Your task to perform on an android device: uninstall "Gmail" Image 0: 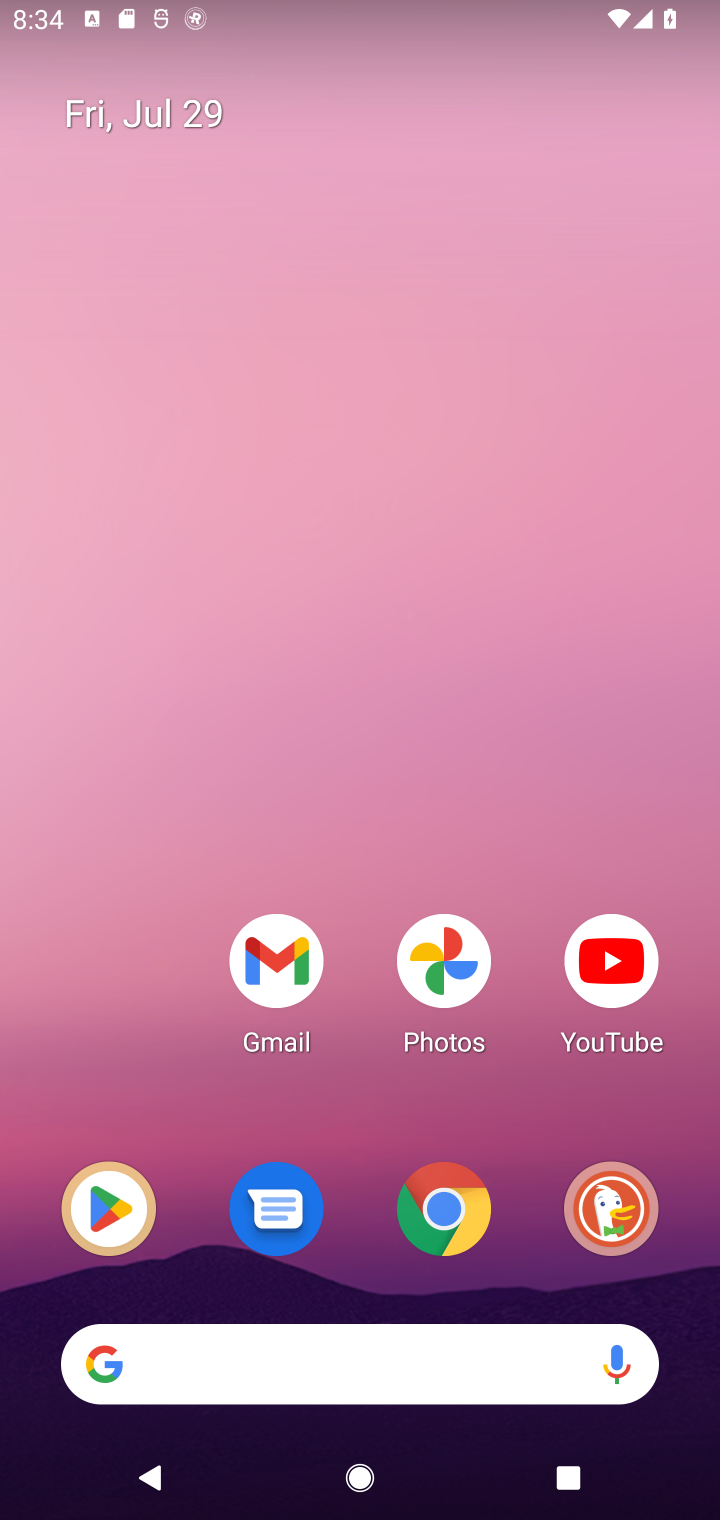
Step 0: click (291, 971)
Your task to perform on an android device: uninstall "Gmail" Image 1: 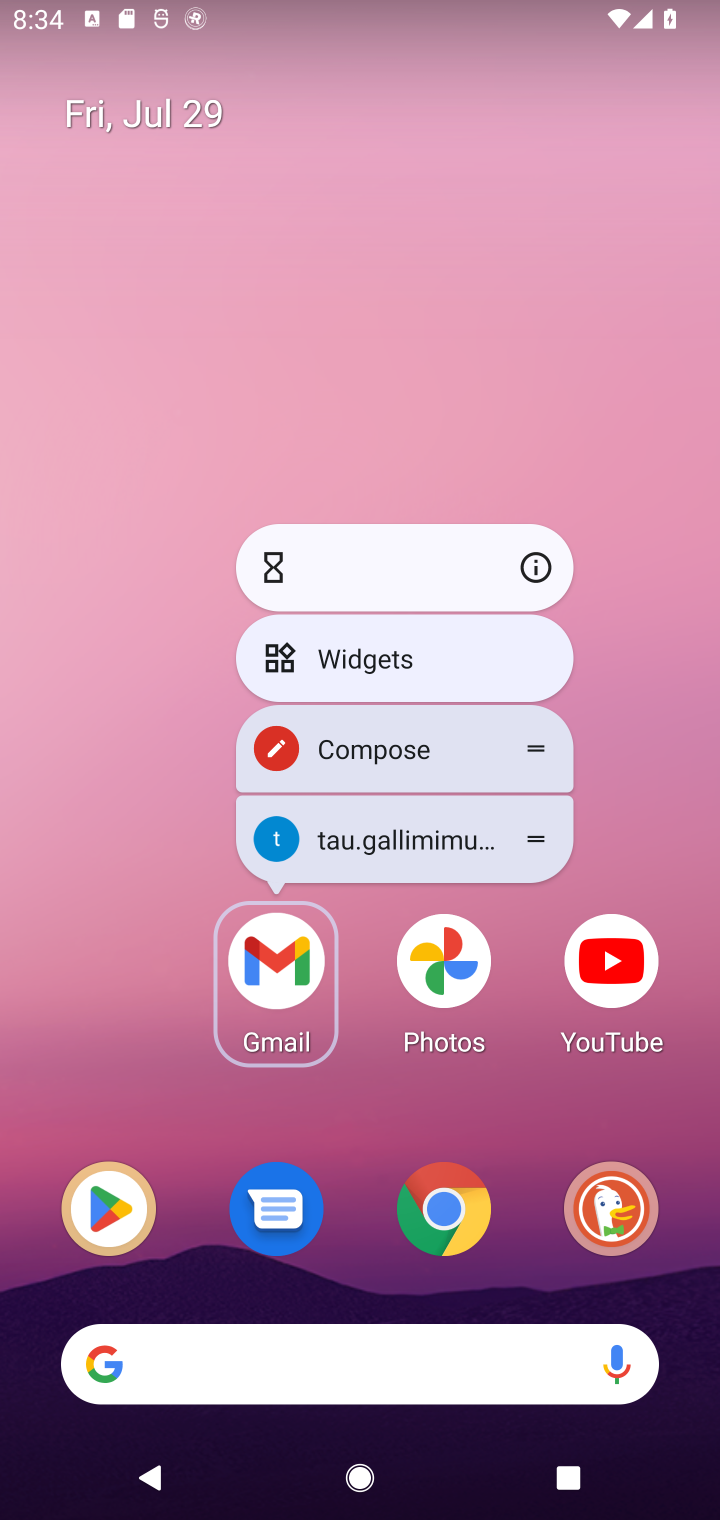
Step 1: click (532, 578)
Your task to perform on an android device: uninstall "Gmail" Image 2: 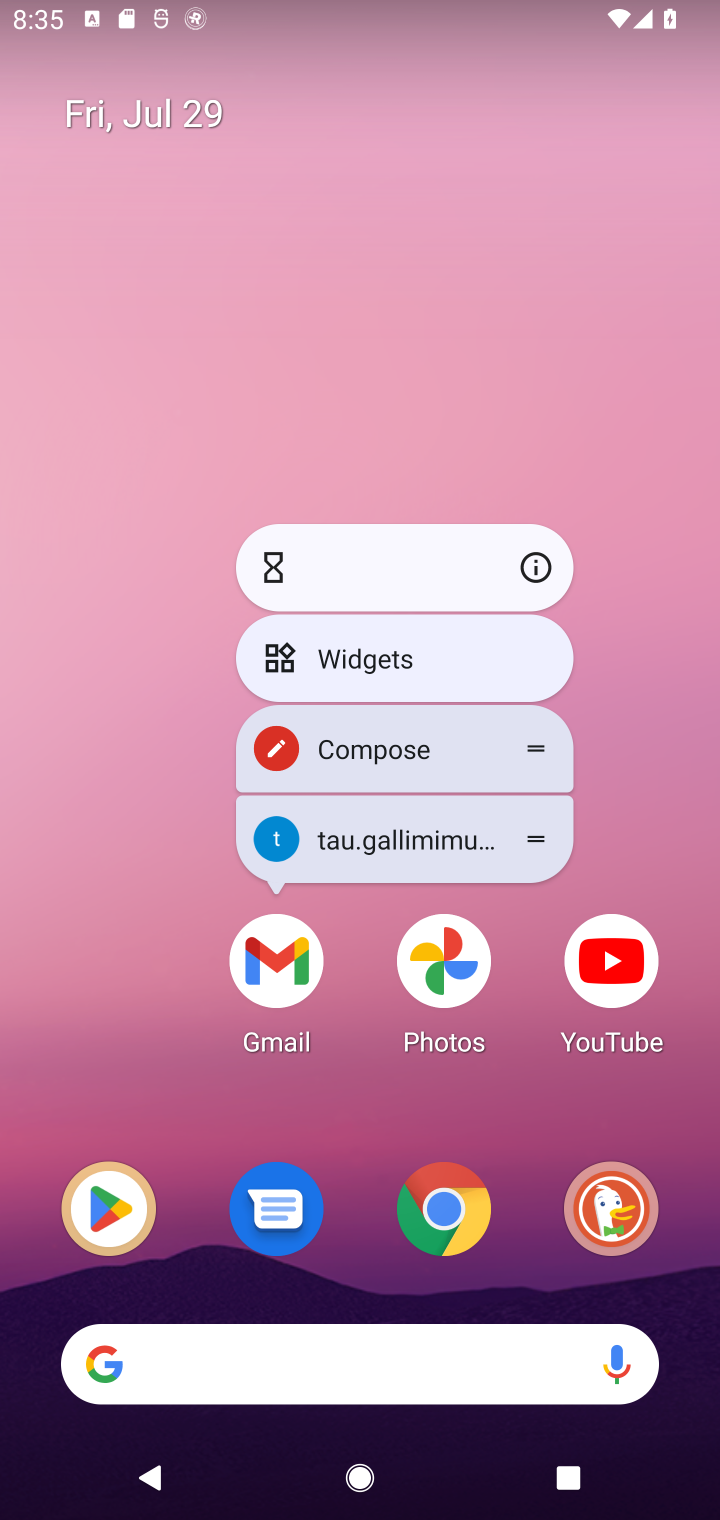
Step 2: click (534, 568)
Your task to perform on an android device: uninstall "Gmail" Image 3: 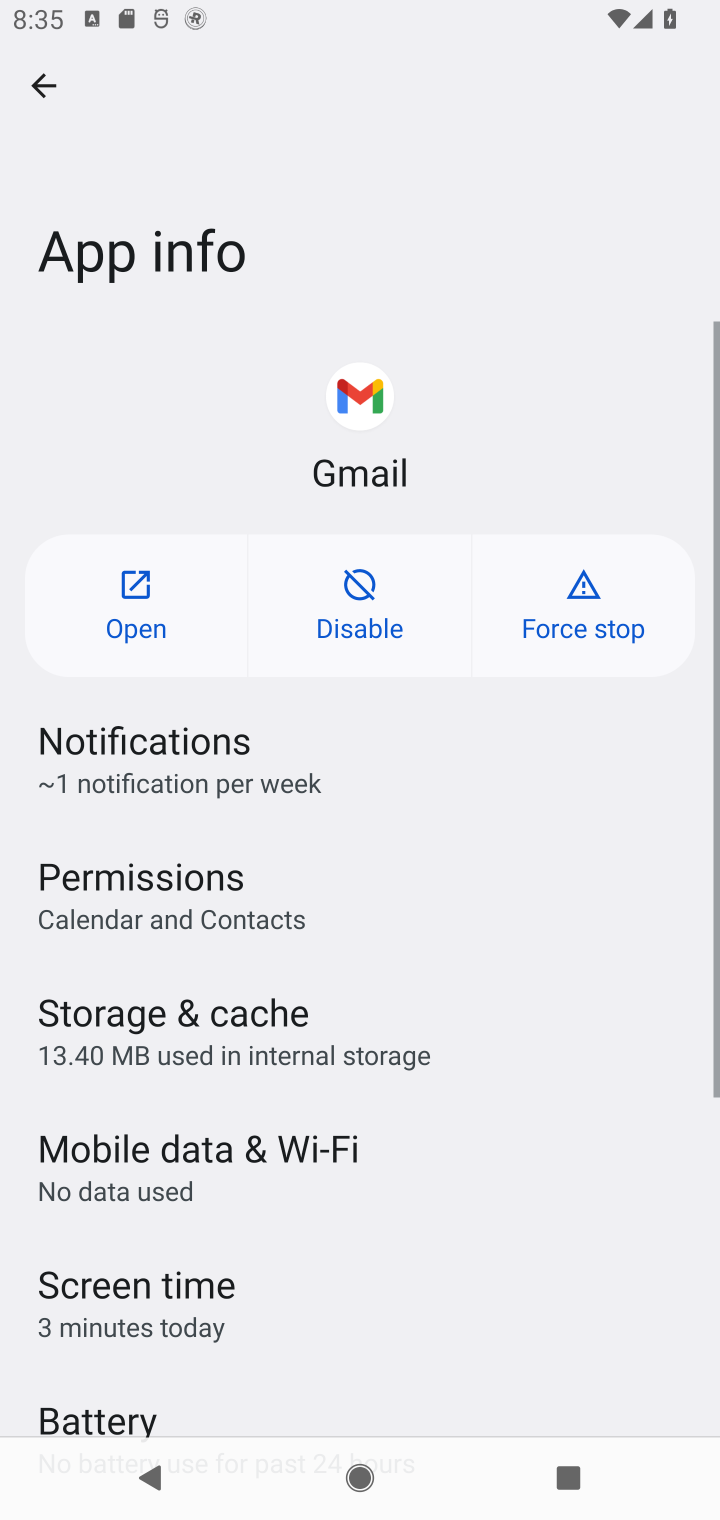
Step 3: task complete